Your task to perform on an android device: Open wifi settings Image 0: 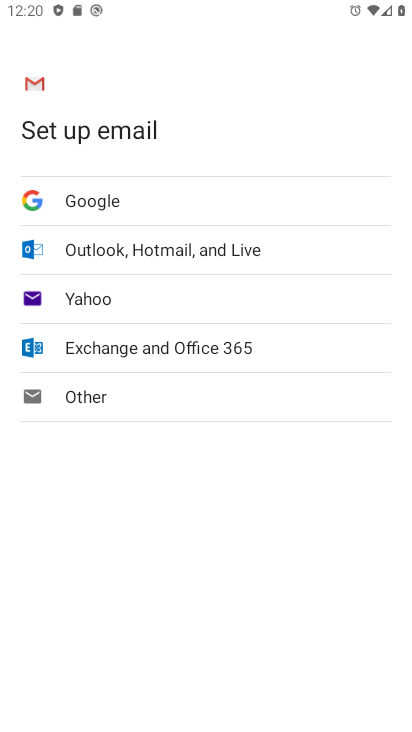
Step 0: press home button
Your task to perform on an android device: Open wifi settings Image 1: 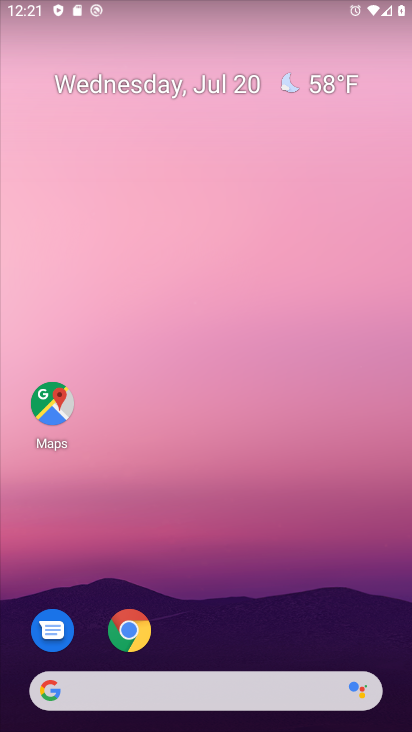
Step 1: drag from (208, 682) to (256, 114)
Your task to perform on an android device: Open wifi settings Image 2: 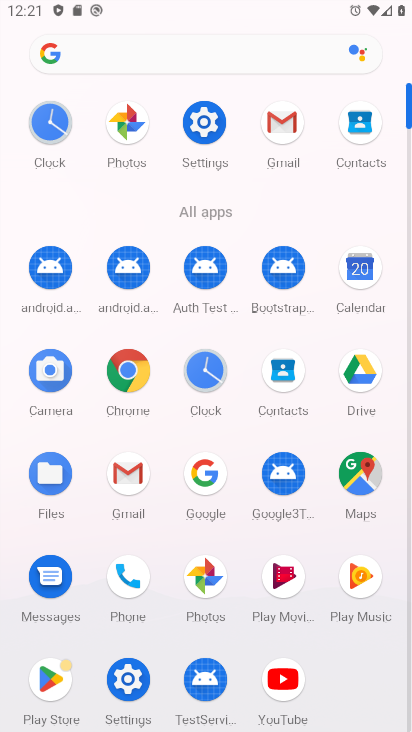
Step 2: click (204, 123)
Your task to perform on an android device: Open wifi settings Image 3: 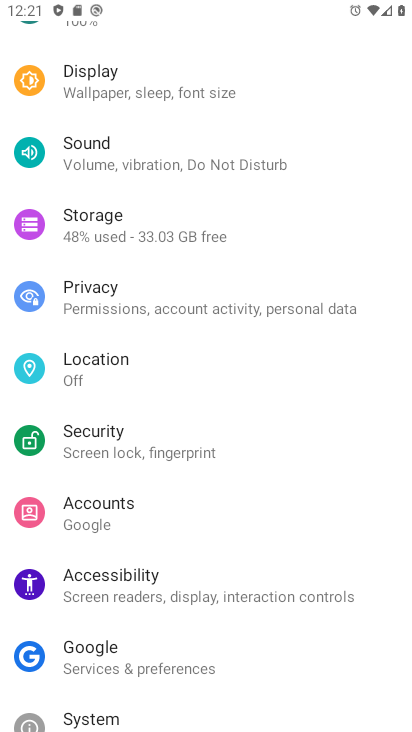
Step 3: drag from (308, 50) to (213, 581)
Your task to perform on an android device: Open wifi settings Image 4: 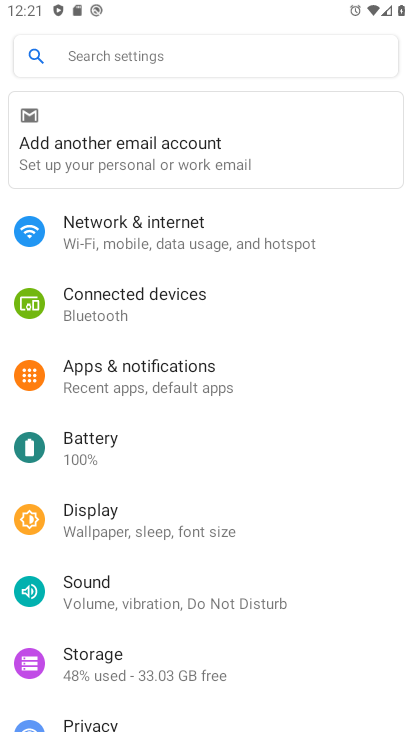
Step 4: click (151, 219)
Your task to perform on an android device: Open wifi settings Image 5: 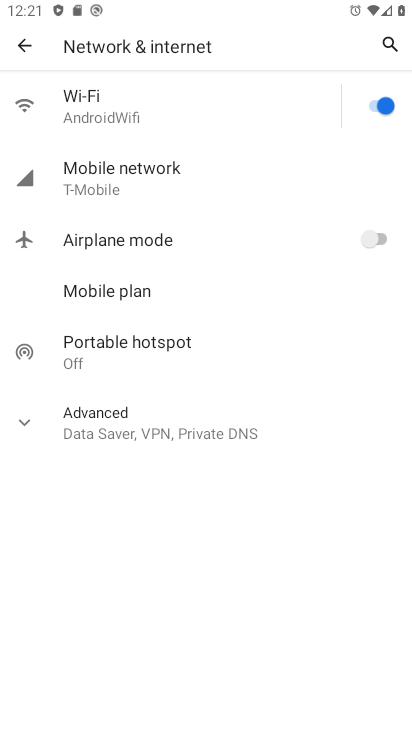
Step 5: click (91, 99)
Your task to perform on an android device: Open wifi settings Image 6: 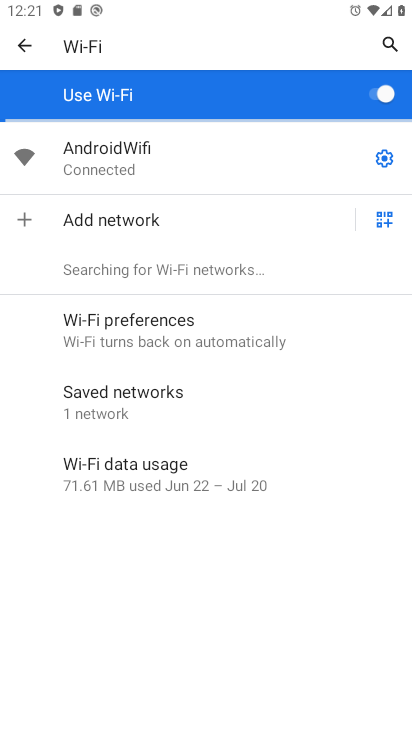
Step 6: task complete